Your task to perform on an android device: check storage Image 0: 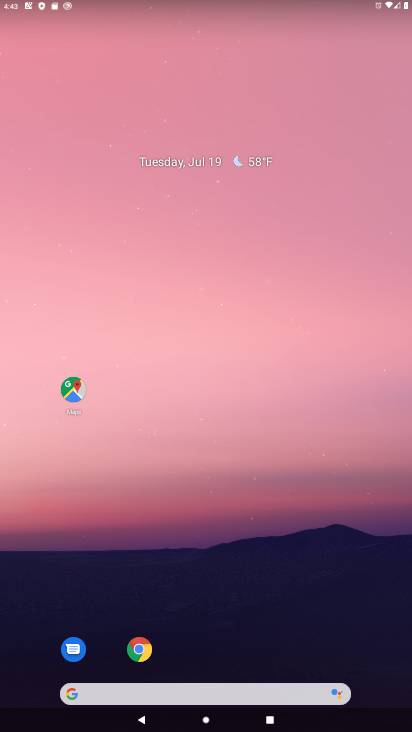
Step 0: drag from (203, 589) to (192, 268)
Your task to perform on an android device: check storage Image 1: 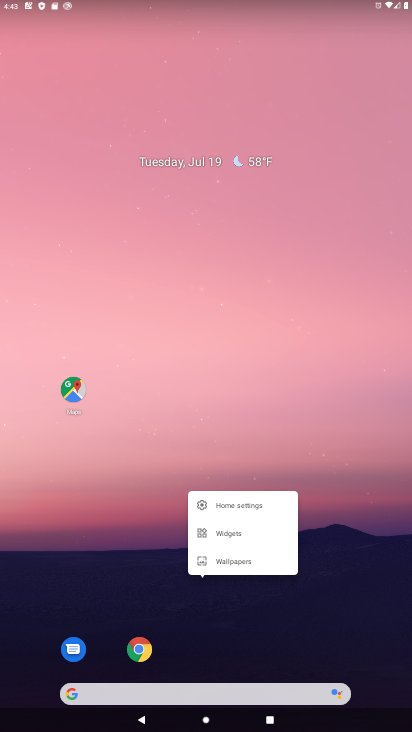
Step 1: drag from (167, 631) to (222, 84)
Your task to perform on an android device: check storage Image 2: 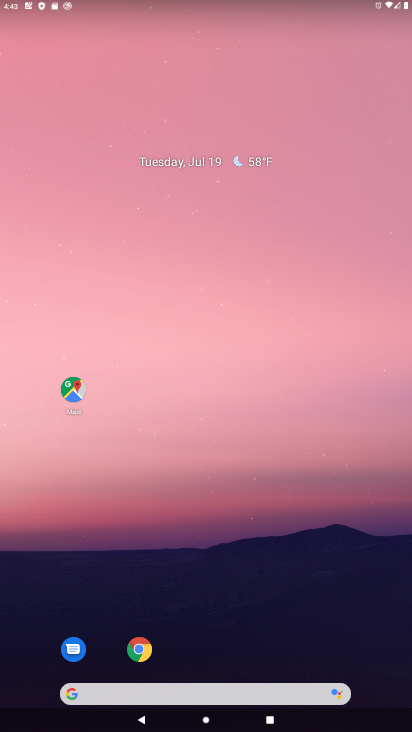
Step 2: drag from (184, 414) to (216, 34)
Your task to perform on an android device: check storage Image 3: 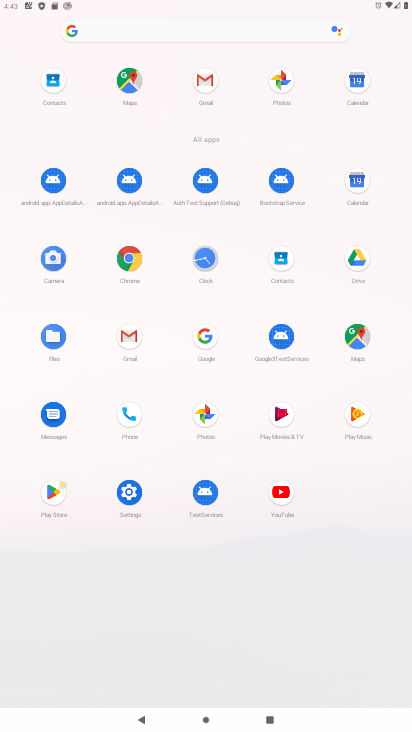
Step 3: click (125, 490)
Your task to perform on an android device: check storage Image 4: 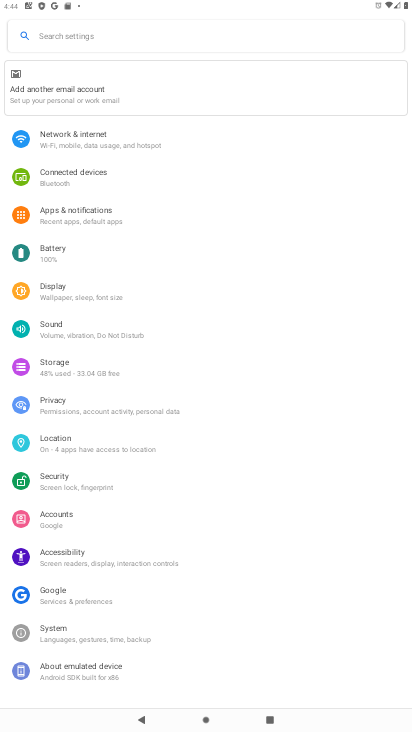
Step 4: click (72, 366)
Your task to perform on an android device: check storage Image 5: 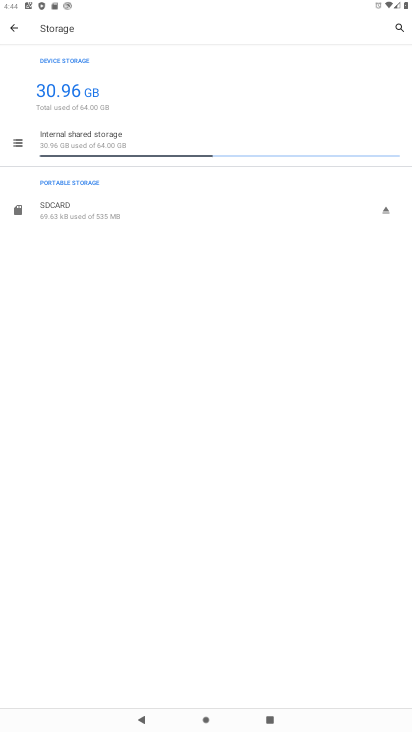
Step 5: task complete